Your task to perform on an android device: search for starred emails in the gmail app Image 0: 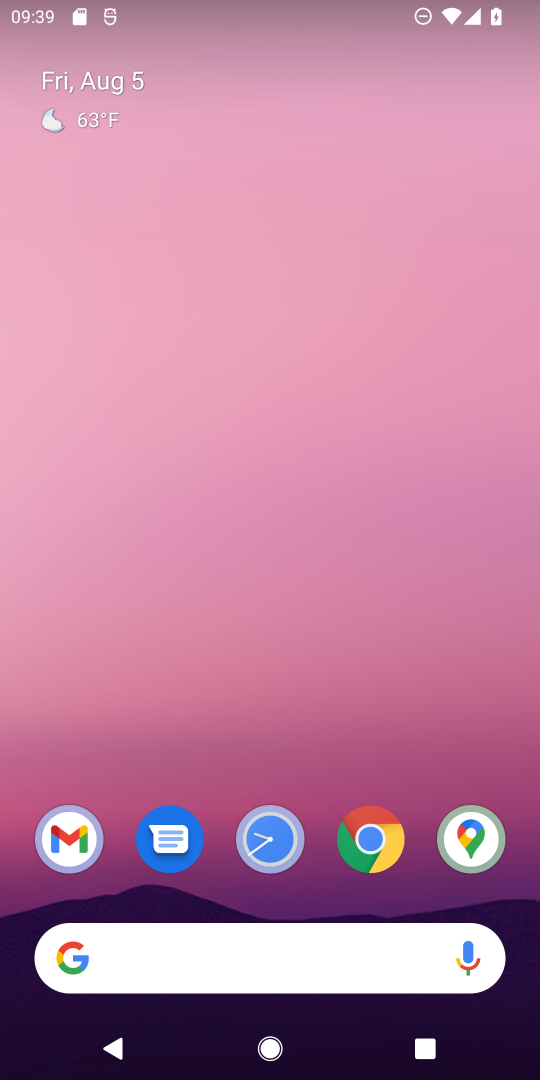
Step 0: drag from (319, 913) to (321, 74)
Your task to perform on an android device: search for starred emails in the gmail app Image 1: 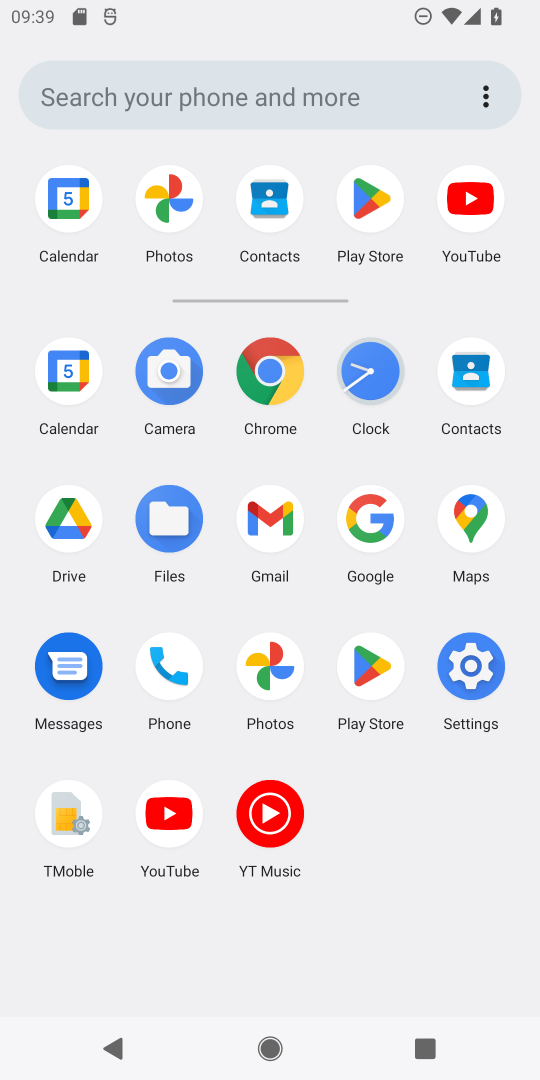
Step 1: click (258, 512)
Your task to perform on an android device: search for starred emails in the gmail app Image 2: 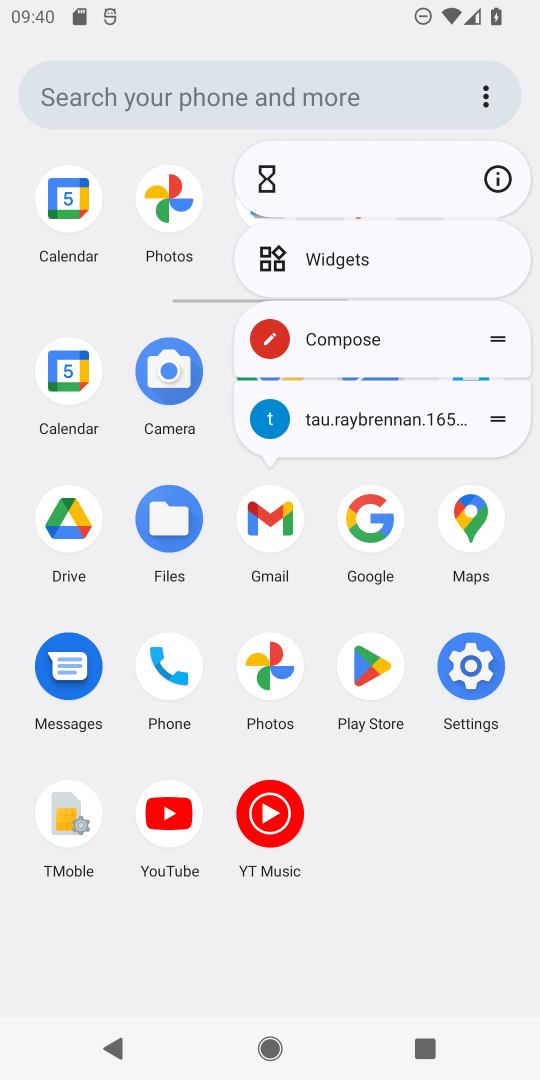
Step 2: click (436, 891)
Your task to perform on an android device: search for starred emails in the gmail app Image 3: 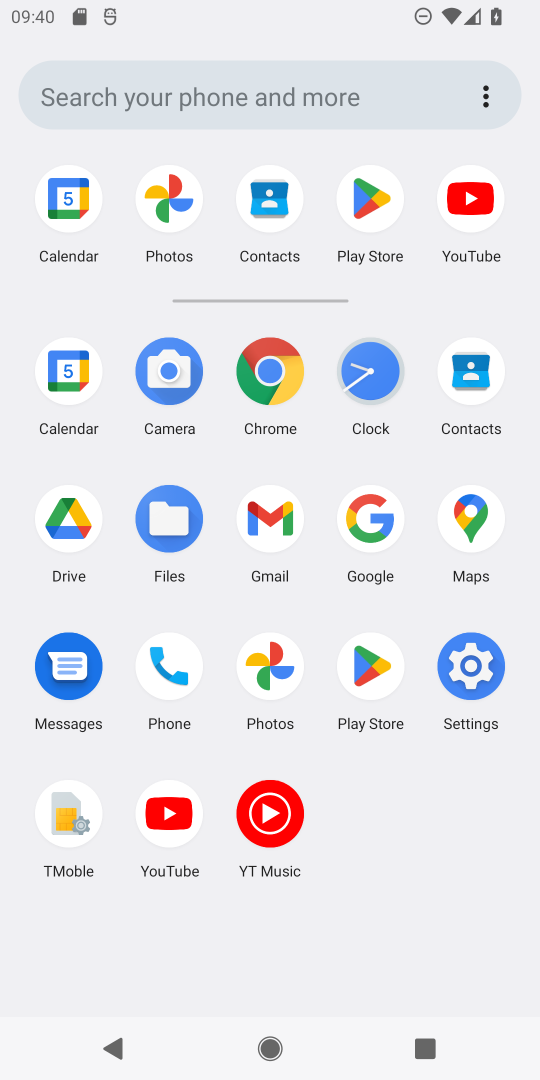
Step 3: click (273, 522)
Your task to perform on an android device: search for starred emails in the gmail app Image 4: 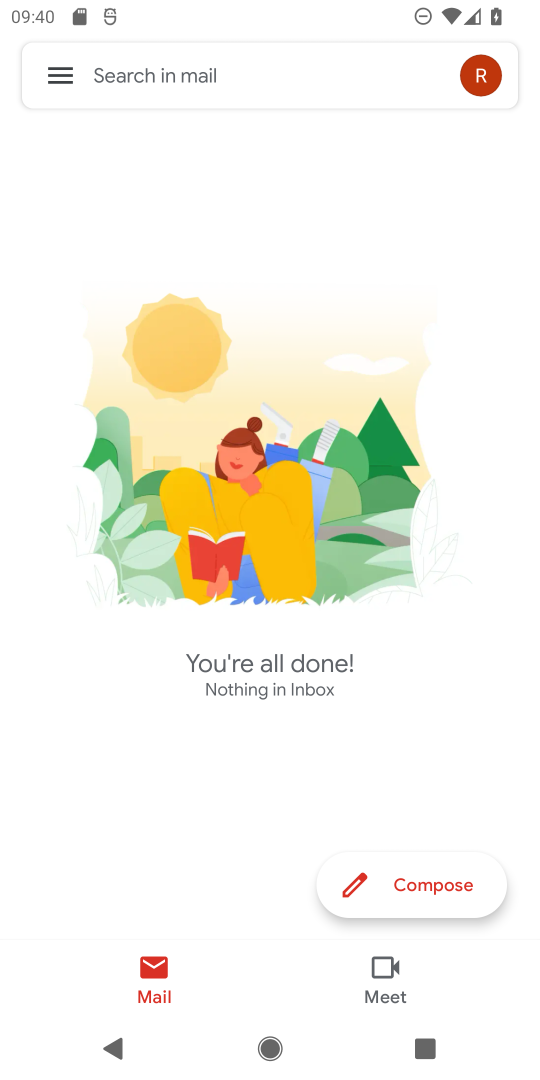
Step 4: click (53, 61)
Your task to perform on an android device: search for starred emails in the gmail app Image 5: 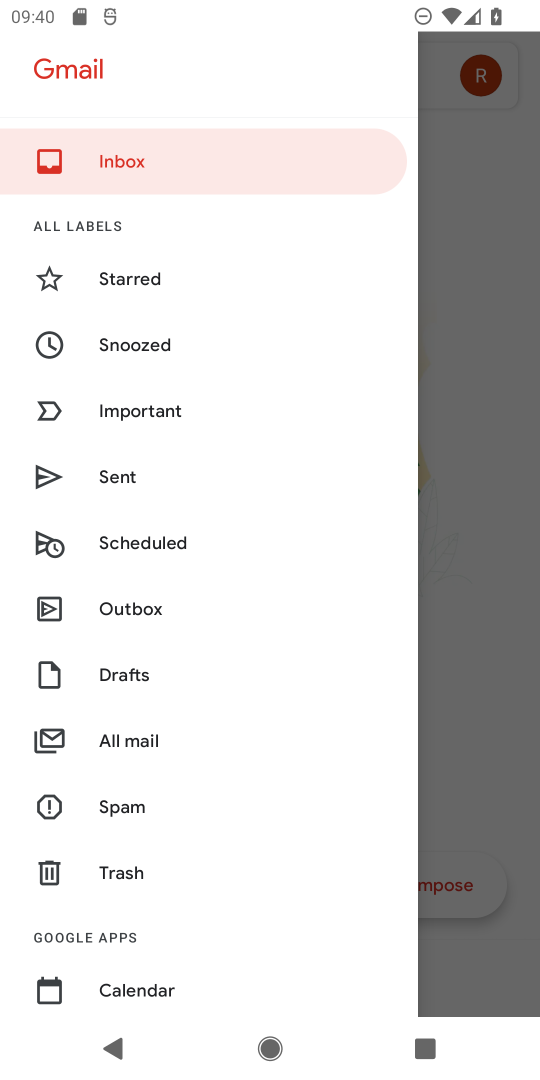
Step 5: click (141, 276)
Your task to perform on an android device: search for starred emails in the gmail app Image 6: 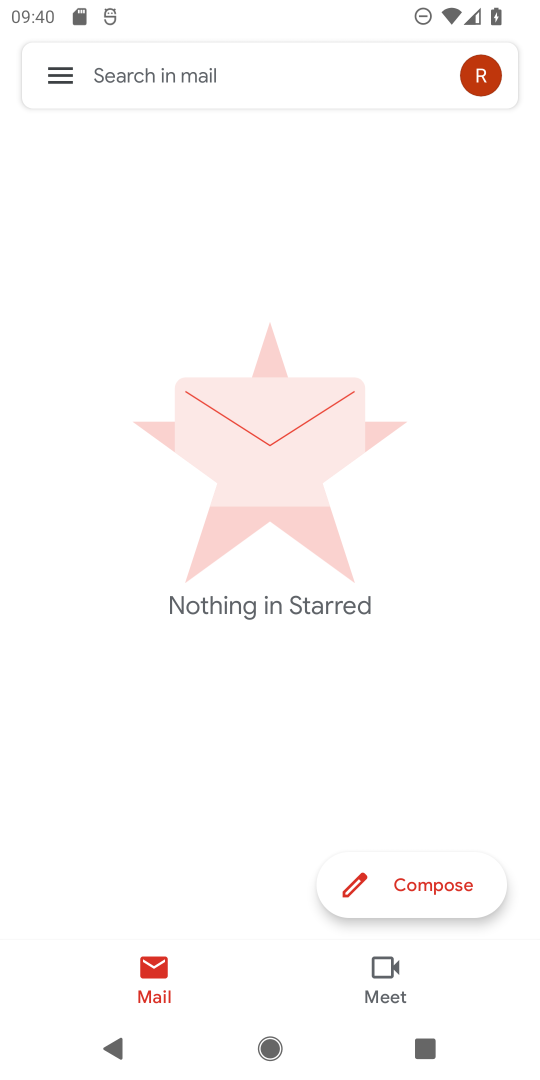
Step 6: task complete